Your task to perform on an android device: turn off airplane mode Image 0: 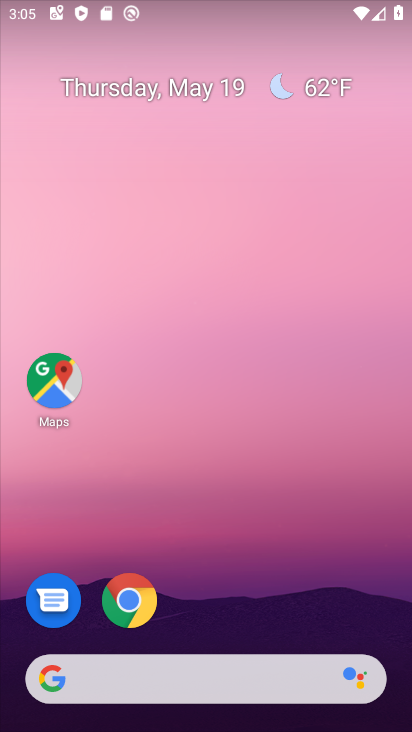
Step 0: press home button
Your task to perform on an android device: turn off airplane mode Image 1: 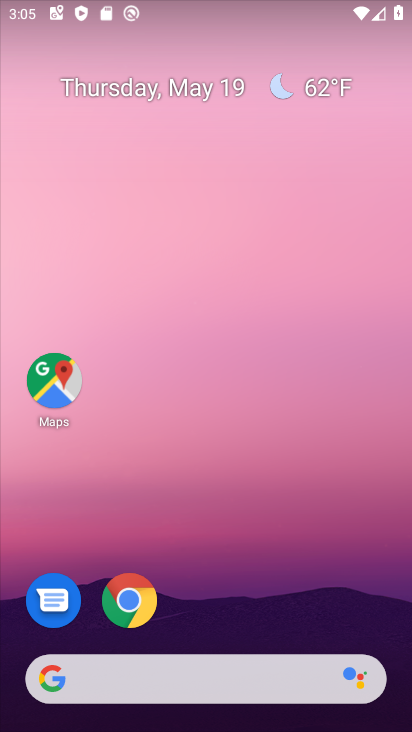
Step 1: task complete